Your task to perform on an android device: refresh tabs in the chrome app Image 0: 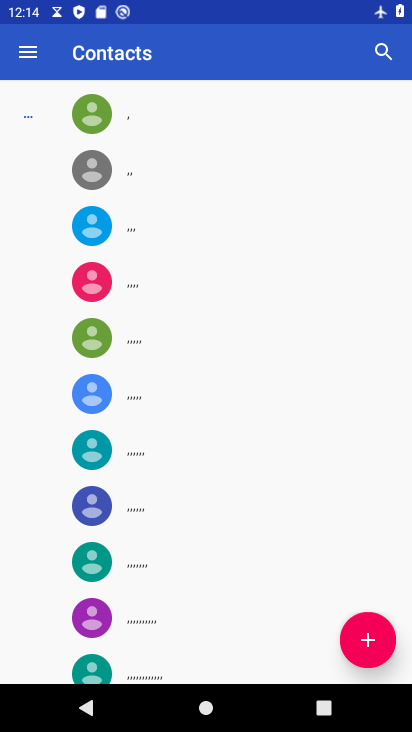
Step 0: drag from (241, 669) to (267, 156)
Your task to perform on an android device: refresh tabs in the chrome app Image 1: 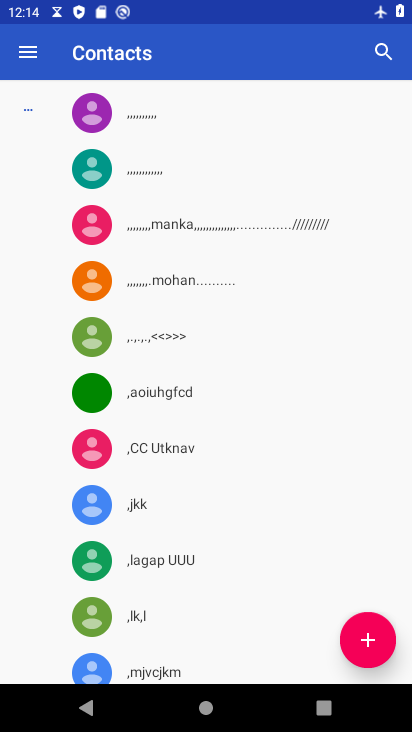
Step 1: press home button
Your task to perform on an android device: refresh tabs in the chrome app Image 2: 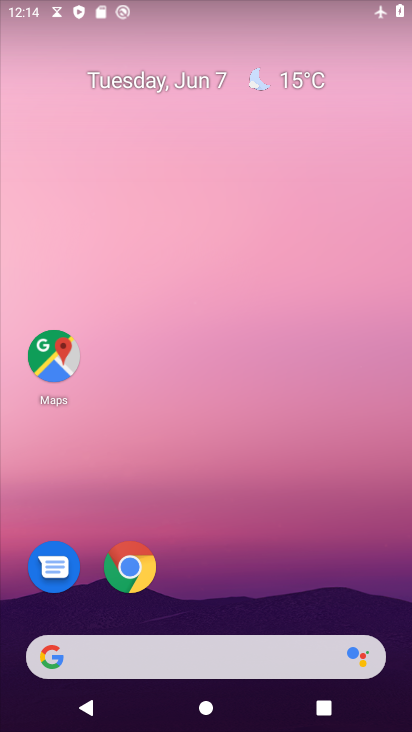
Step 2: drag from (258, 622) to (385, 104)
Your task to perform on an android device: refresh tabs in the chrome app Image 3: 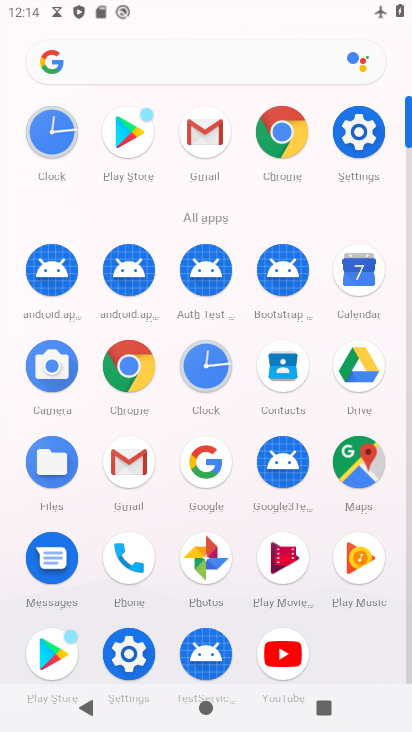
Step 3: click (144, 376)
Your task to perform on an android device: refresh tabs in the chrome app Image 4: 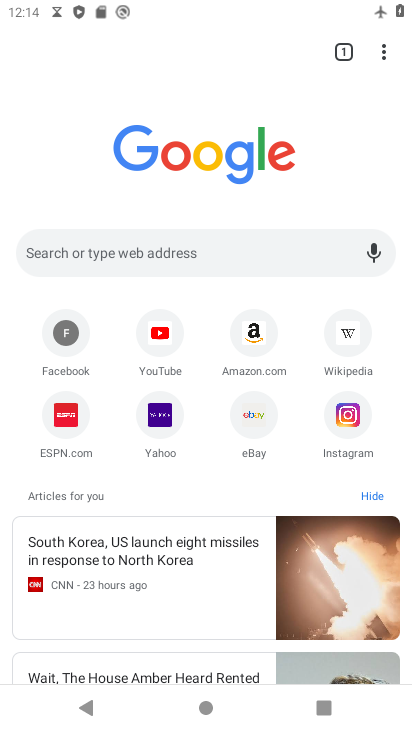
Step 4: task complete